Your task to perform on an android device: change the clock display to analog Image 0: 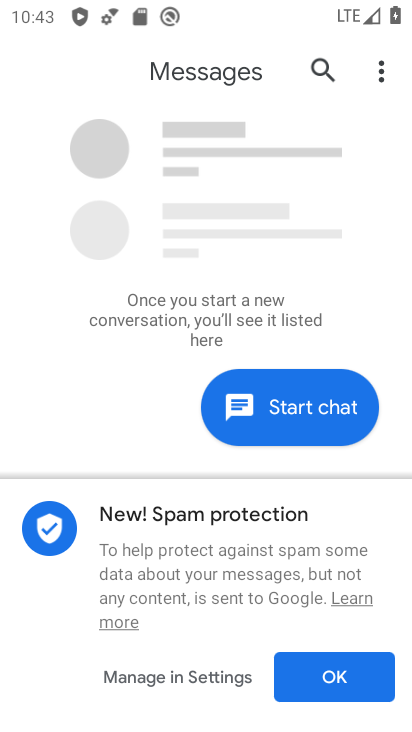
Step 0: press home button
Your task to perform on an android device: change the clock display to analog Image 1: 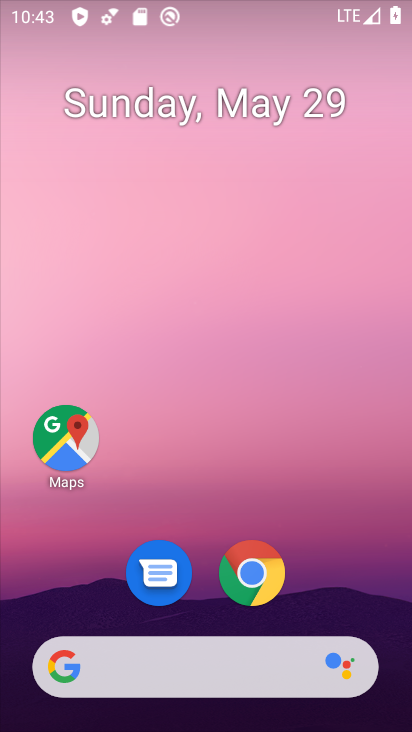
Step 1: drag from (371, 499) to (248, 39)
Your task to perform on an android device: change the clock display to analog Image 2: 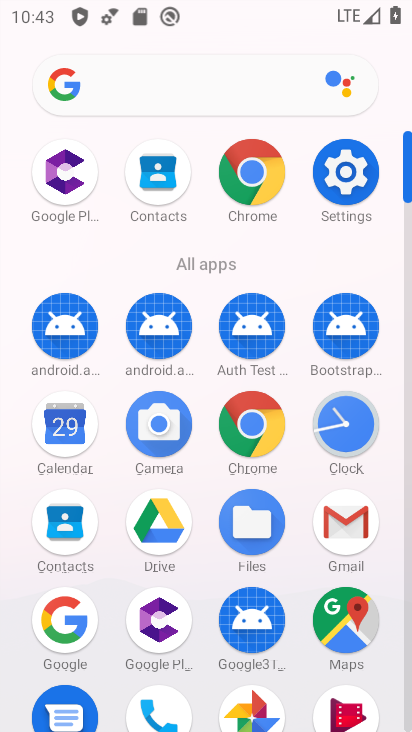
Step 2: click (362, 429)
Your task to perform on an android device: change the clock display to analog Image 3: 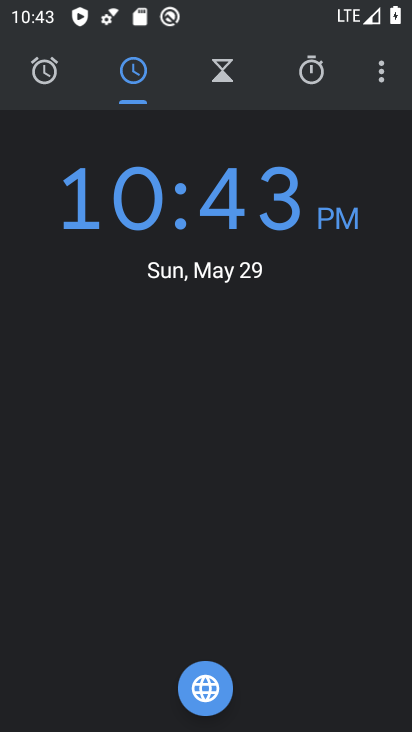
Step 3: click (375, 81)
Your task to perform on an android device: change the clock display to analog Image 4: 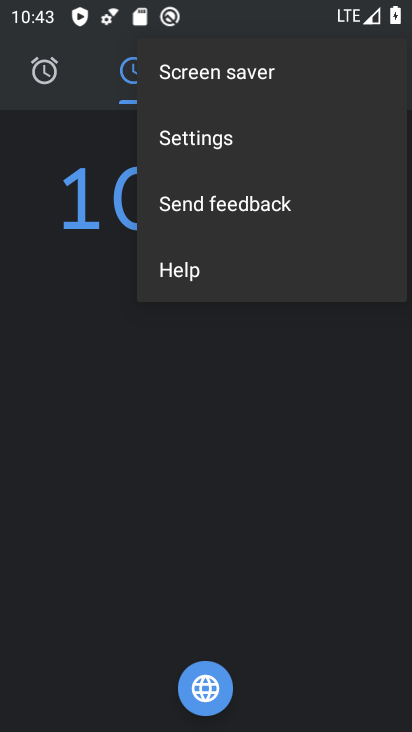
Step 4: click (253, 131)
Your task to perform on an android device: change the clock display to analog Image 5: 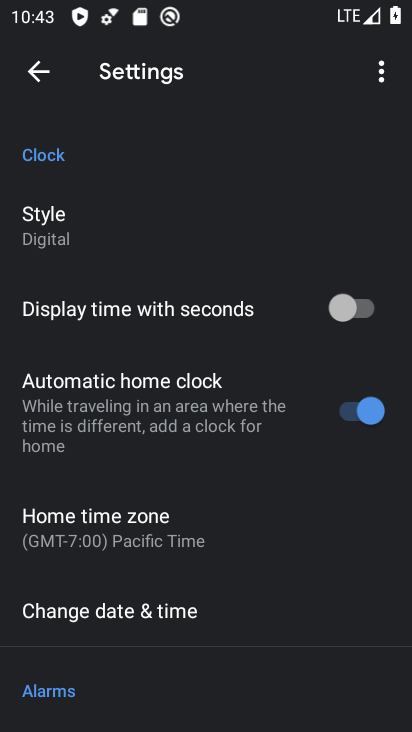
Step 5: click (145, 234)
Your task to perform on an android device: change the clock display to analog Image 6: 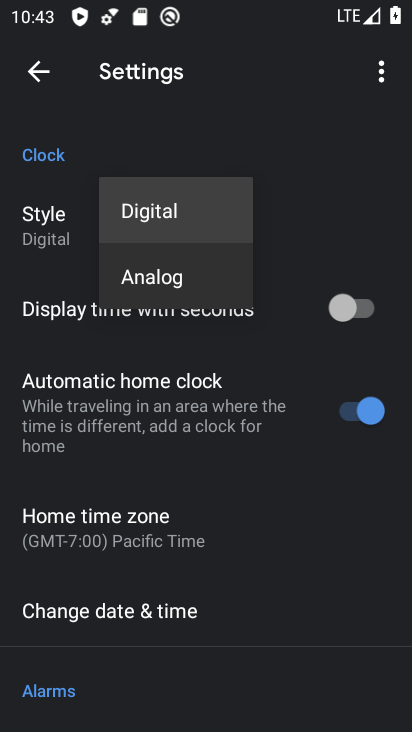
Step 6: click (172, 278)
Your task to perform on an android device: change the clock display to analog Image 7: 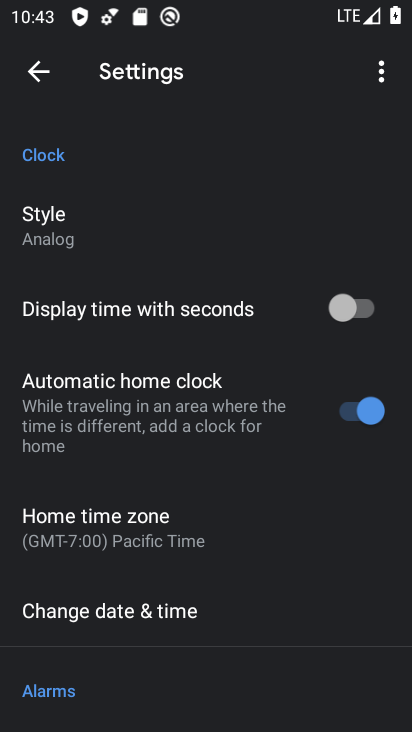
Step 7: task complete